Your task to perform on an android device: empty trash in the gmail app Image 0: 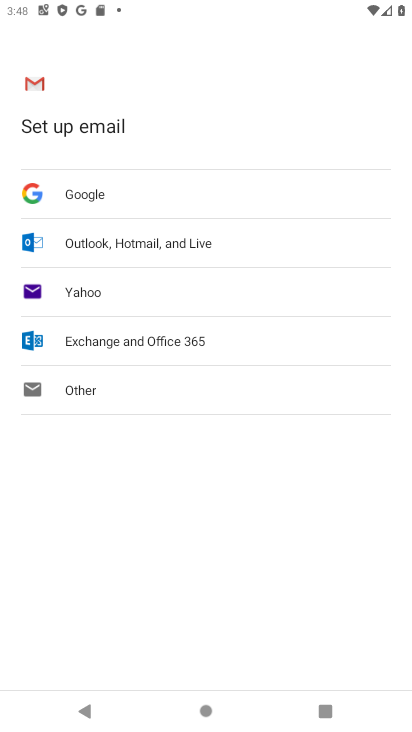
Step 0: press home button
Your task to perform on an android device: empty trash in the gmail app Image 1: 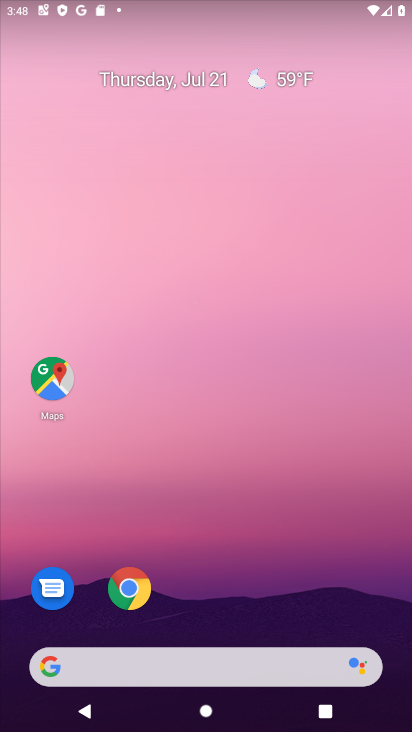
Step 1: drag from (216, 529) to (219, 264)
Your task to perform on an android device: empty trash in the gmail app Image 2: 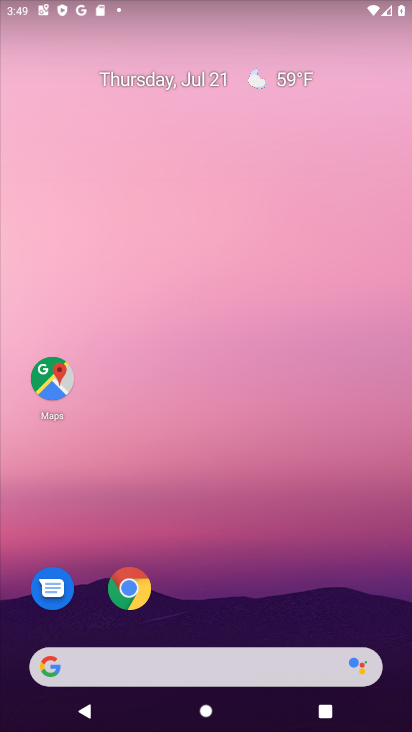
Step 2: drag from (238, 700) to (215, 197)
Your task to perform on an android device: empty trash in the gmail app Image 3: 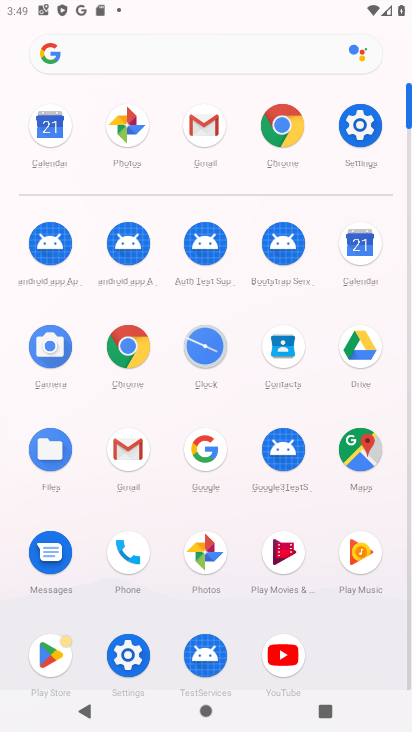
Step 3: click (126, 456)
Your task to perform on an android device: empty trash in the gmail app Image 4: 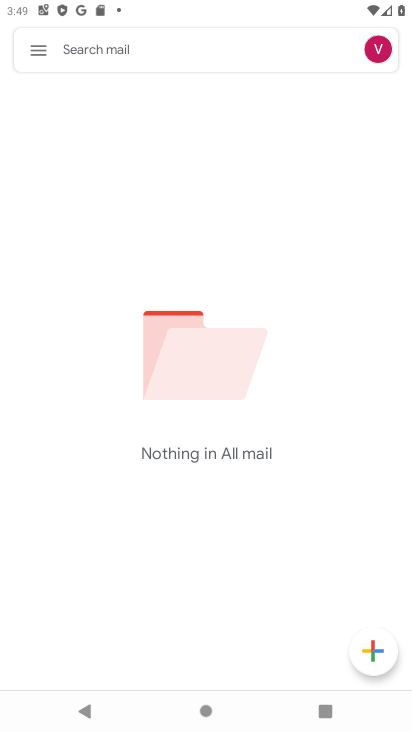
Step 4: click (34, 54)
Your task to perform on an android device: empty trash in the gmail app Image 5: 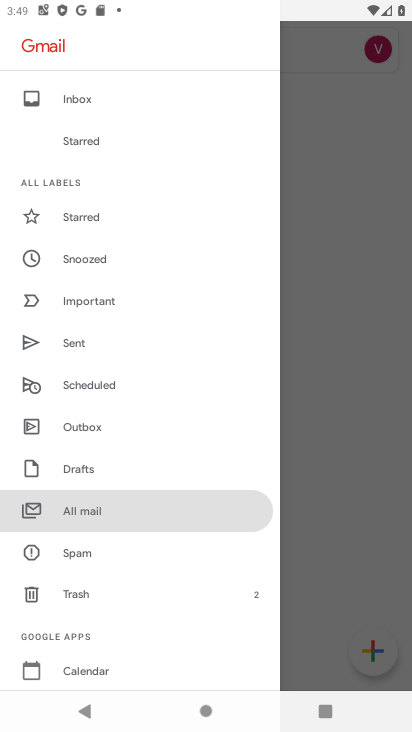
Step 5: click (79, 593)
Your task to perform on an android device: empty trash in the gmail app Image 6: 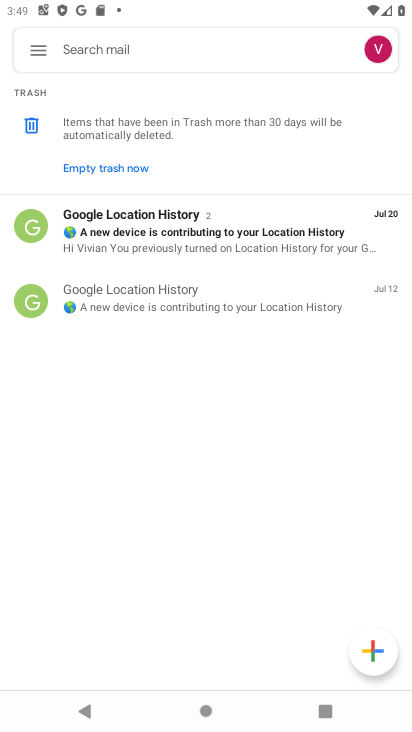
Step 6: click (122, 162)
Your task to perform on an android device: empty trash in the gmail app Image 7: 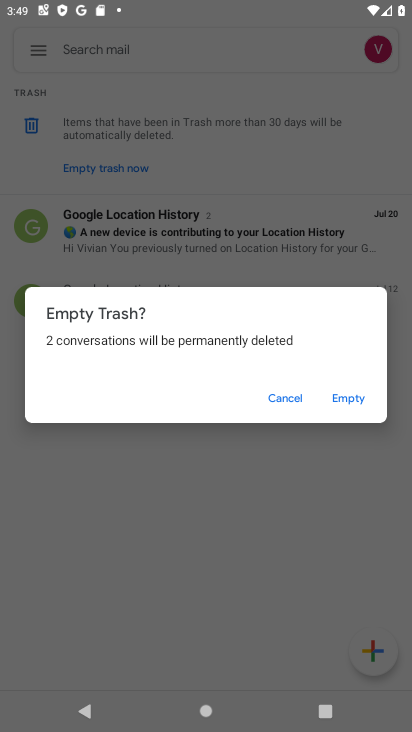
Step 7: click (355, 401)
Your task to perform on an android device: empty trash in the gmail app Image 8: 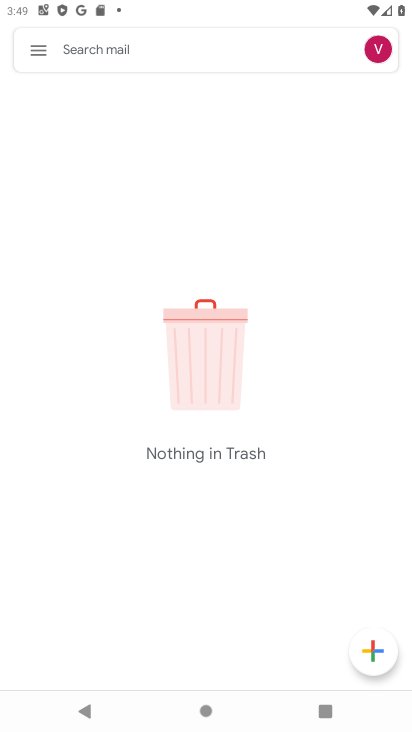
Step 8: task complete